Your task to perform on an android device: Open Google Chrome and click the shortcut for Amazon.com Image 0: 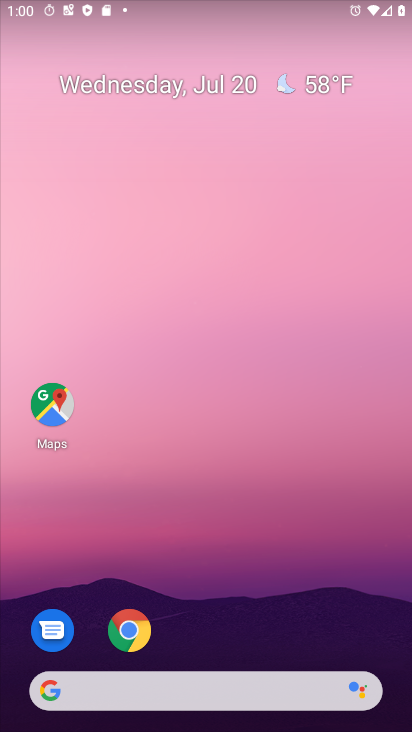
Step 0: press home button
Your task to perform on an android device: Open Google Chrome and click the shortcut for Amazon.com Image 1: 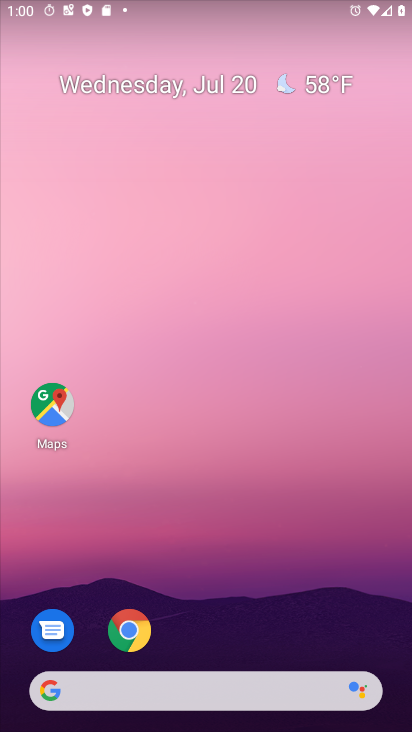
Step 1: click (130, 629)
Your task to perform on an android device: Open Google Chrome and click the shortcut for Amazon.com Image 2: 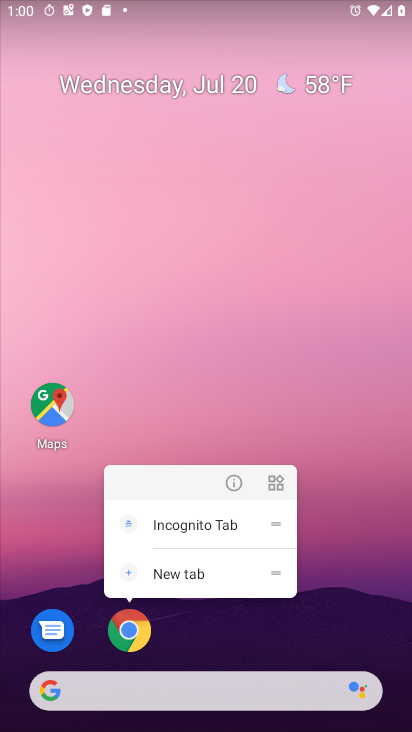
Step 2: click (131, 633)
Your task to perform on an android device: Open Google Chrome and click the shortcut for Amazon.com Image 3: 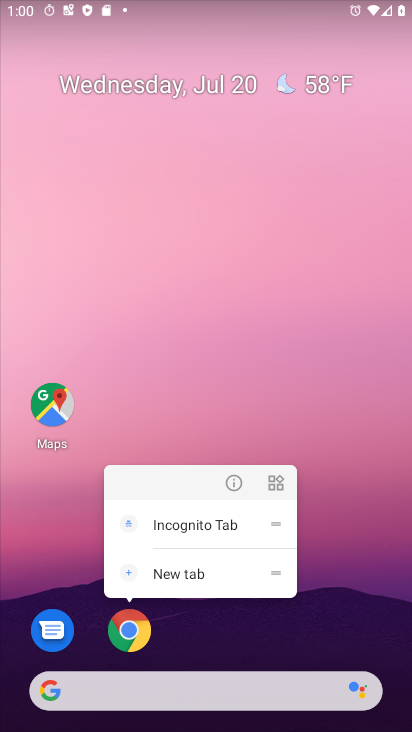
Step 3: click (131, 633)
Your task to perform on an android device: Open Google Chrome and click the shortcut for Amazon.com Image 4: 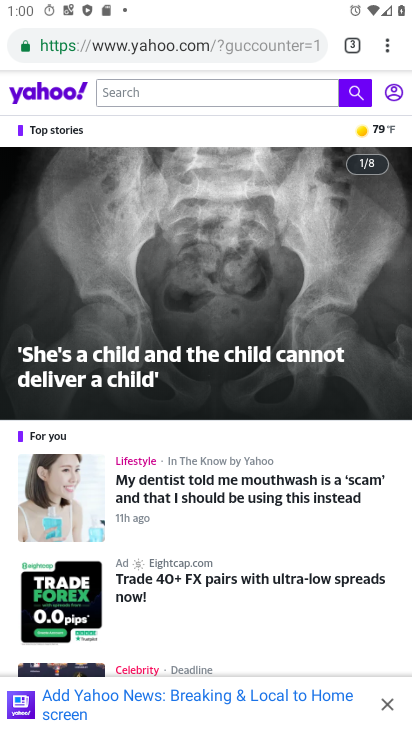
Step 4: drag from (386, 41) to (266, 92)
Your task to perform on an android device: Open Google Chrome and click the shortcut for Amazon.com Image 5: 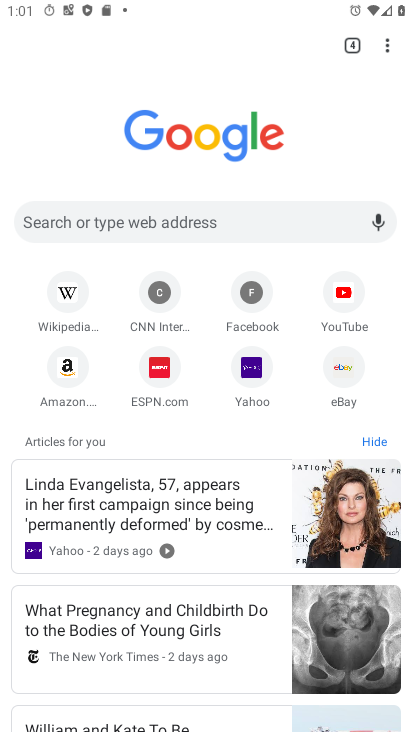
Step 5: click (71, 373)
Your task to perform on an android device: Open Google Chrome and click the shortcut for Amazon.com Image 6: 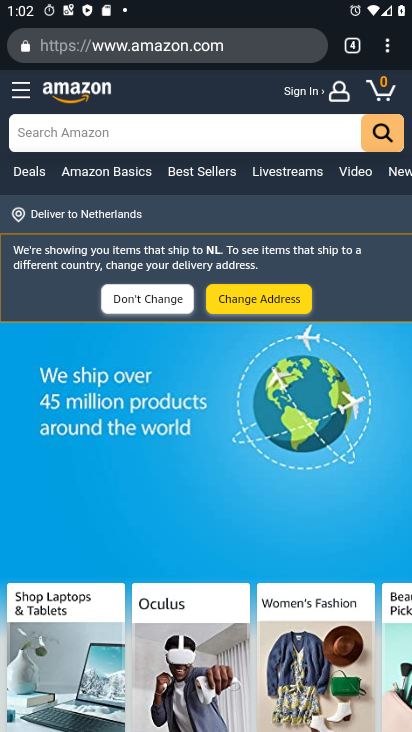
Step 6: task complete